Your task to perform on an android device: turn on the 24-hour format for clock Image 0: 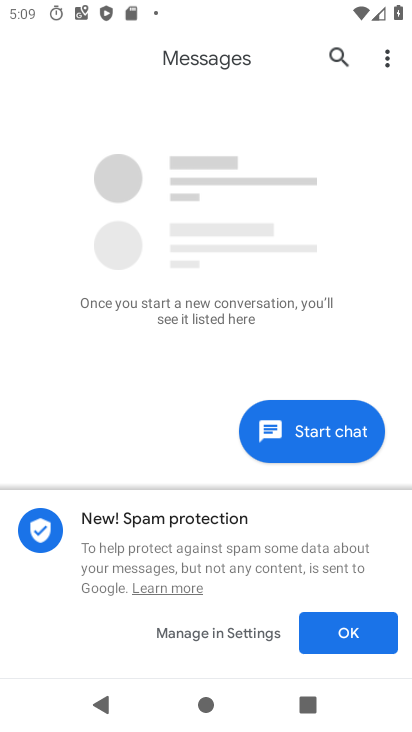
Step 0: press home button
Your task to perform on an android device: turn on the 24-hour format for clock Image 1: 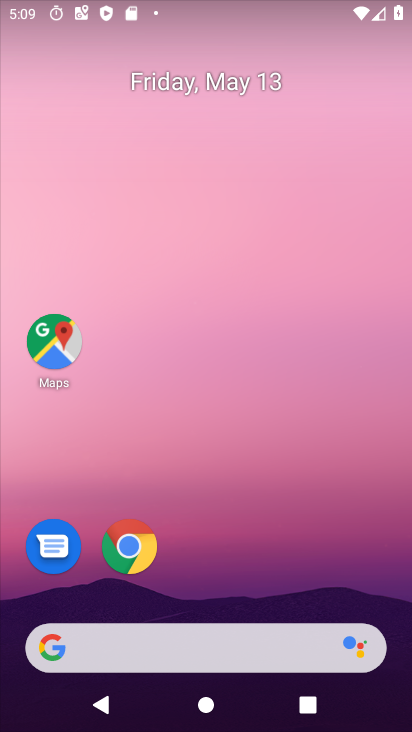
Step 1: drag from (185, 599) to (287, 235)
Your task to perform on an android device: turn on the 24-hour format for clock Image 2: 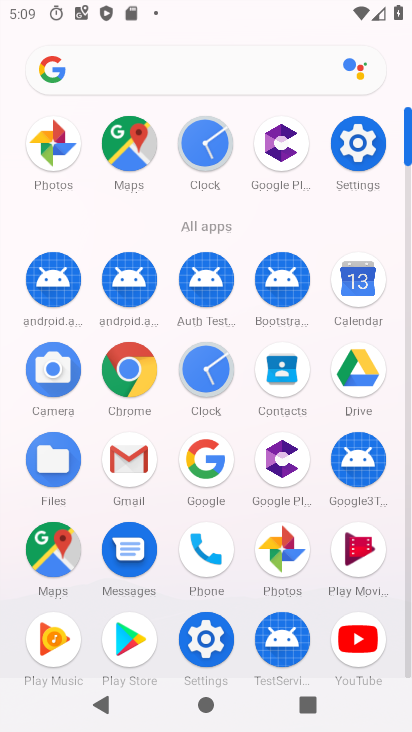
Step 2: click (223, 379)
Your task to perform on an android device: turn on the 24-hour format for clock Image 3: 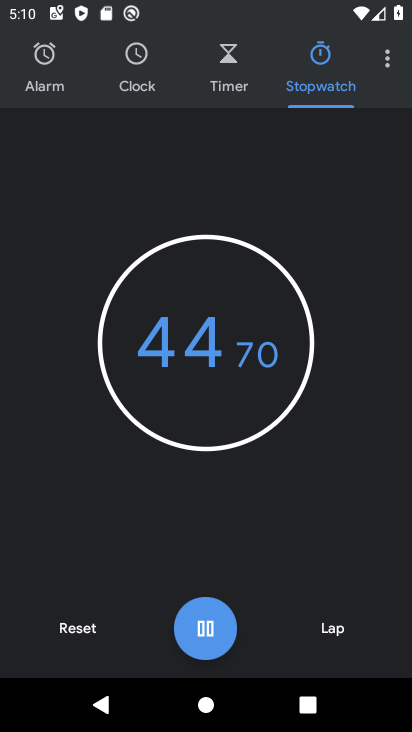
Step 3: click (391, 62)
Your task to perform on an android device: turn on the 24-hour format for clock Image 4: 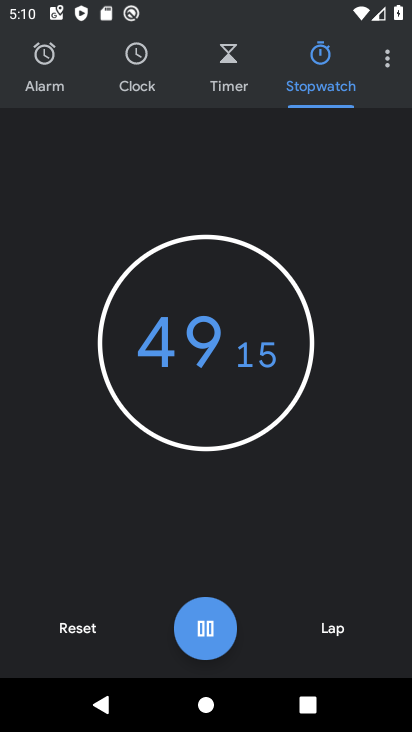
Step 4: click (391, 62)
Your task to perform on an android device: turn on the 24-hour format for clock Image 5: 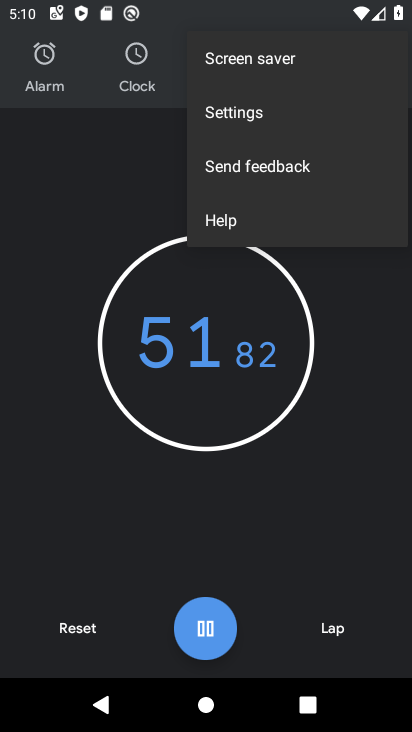
Step 5: click (315, 129)
Your task to perform on an android device: turn on the 24-hour format for clock Image 6: 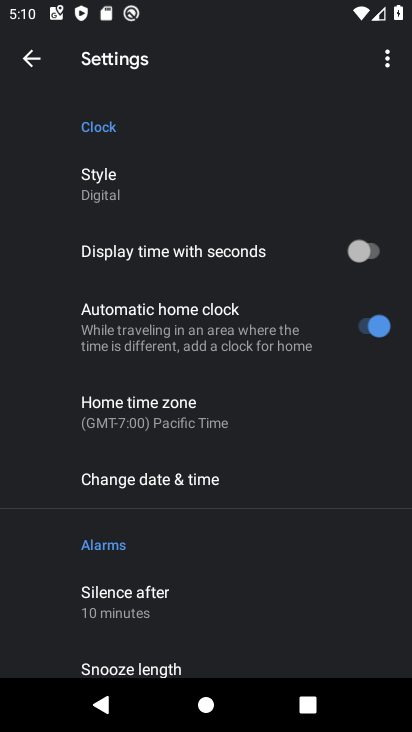
Step 6: click (210, 476)
Your task to perform on an android device: turn on the 24-hour format for clock Image 7: 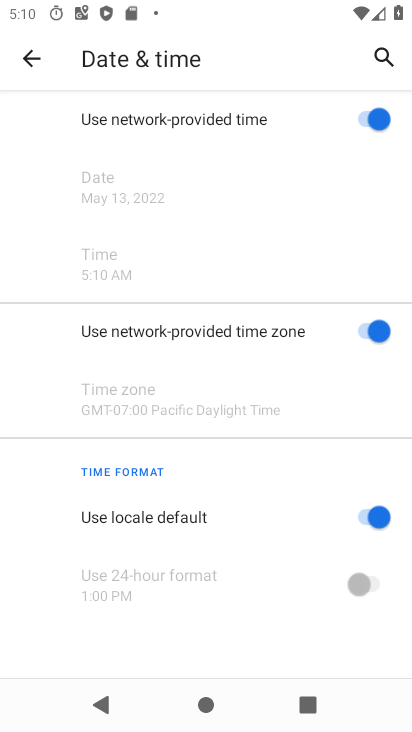
Step 7: drag from (182, 600) to (311, 226)
Your task to perform on an android device: turn on the 24-hour format for clock Image 8: 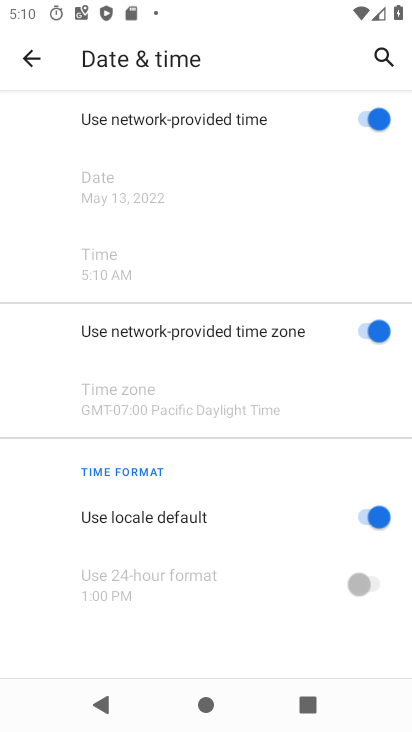
Step 8: click (376, 513)
Your task to perform on an android device: turn on the 24-hour format for clock Image 9: 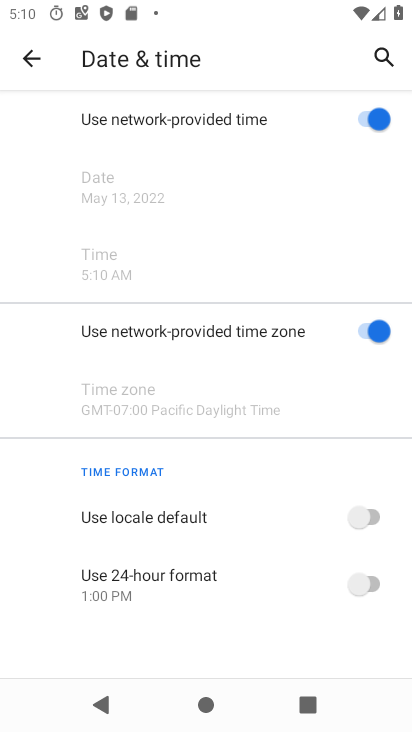
Step 9: click (375, 578)
Your task to perform on an android device: turn on the 24-hour format for clock Image 10: 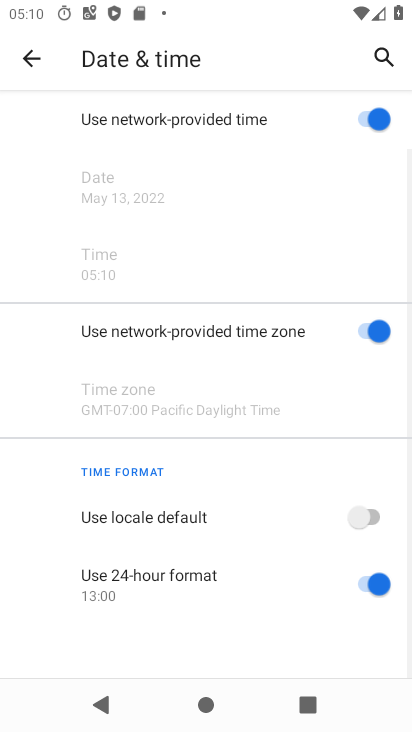
Step 10: task complete